Your task to perform on an android device: turn vacation reply on in the gmail app Image 0: 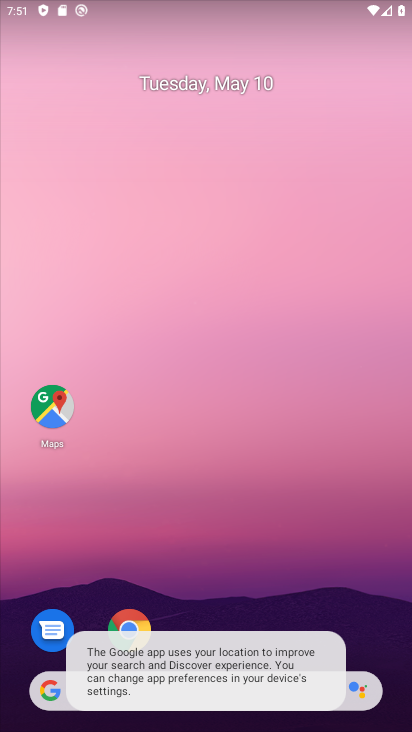
Step 0: drag from (297, 579) to (204, 1)
Your task to perform on an android device: turn vacation reply on in the gmail app Image 1: 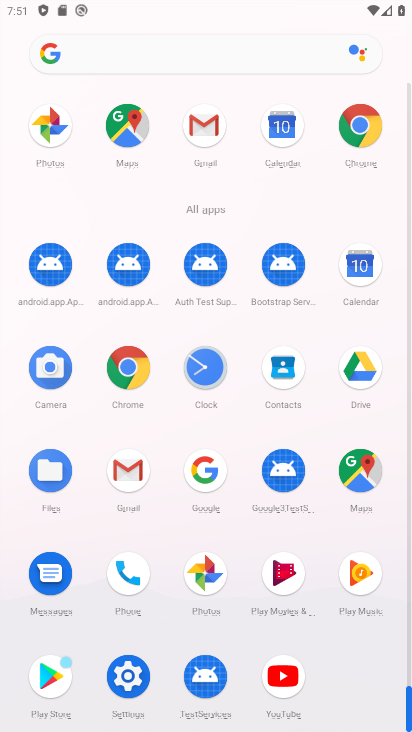
Step 1: drag from (0, 540) to (24, 222)
Your task to perform on an android device: turn vacation reply on in the gmail app Image 2: 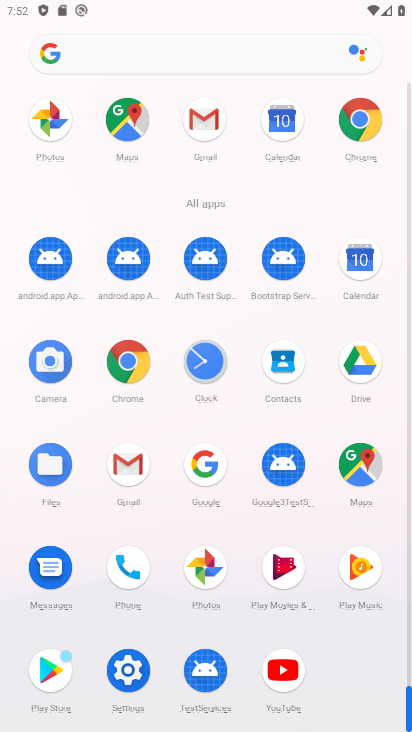
Step 2: click (128, 464)
Your task to perform on an android device: turn vacation reply on in the gmail app Image 3: 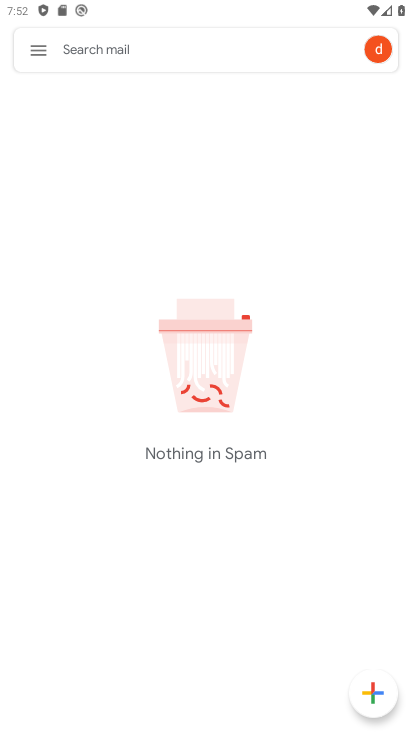
Step 3: click (33, 57)
Your task to perform on an android device: turn vacation reply on in the gmail app Image 4: 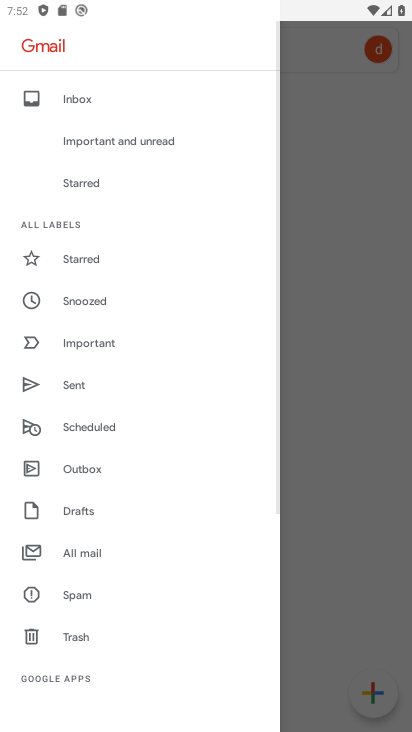
Step 4: drag from (180, 612) to (126, 169)
Your task to perform on an android device: turn vacation reply on in the gmail app Image 5: 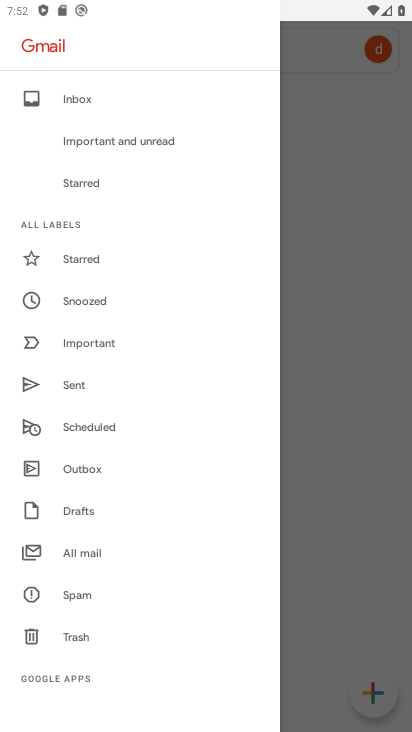
Step 5: drag from (108, 647) to (169, 266)
Your task to perform on an android device: turn vacation reply on in the gmail app Image 6: 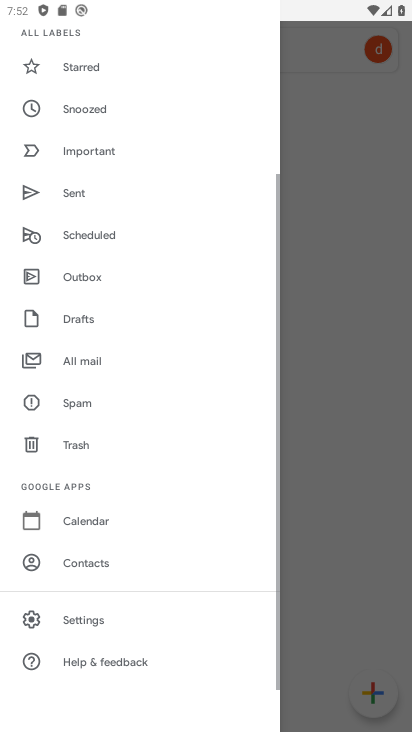
Step 6: click (76, 618)
Your task to perform on an android device: turn vacation reply on in the gmail app Image 7: 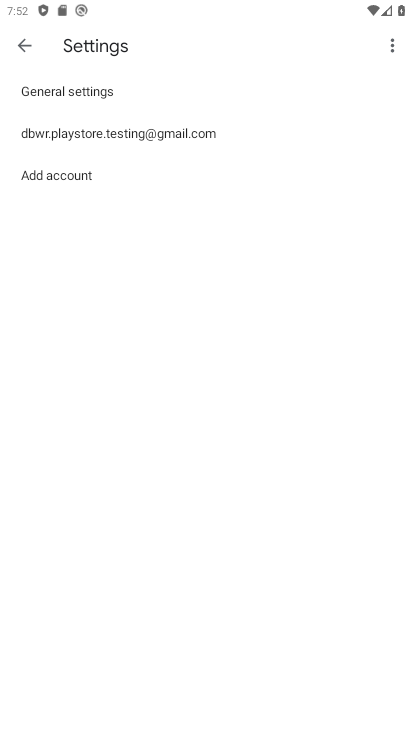
Step 7: click (121, 133)
Your task to perform on an android device: turn vacation reply on in the gmail app Image 8: 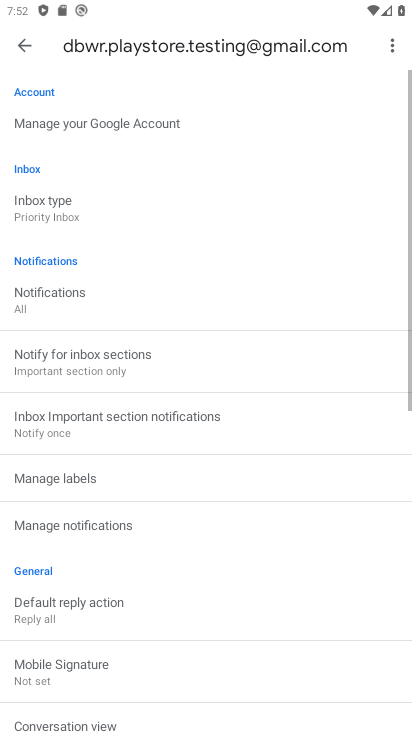
Step 8: drag from (274, 595) to (298, 132)
Your task to perform on an android device: turn vacation reply on in the gmail app Image 9: 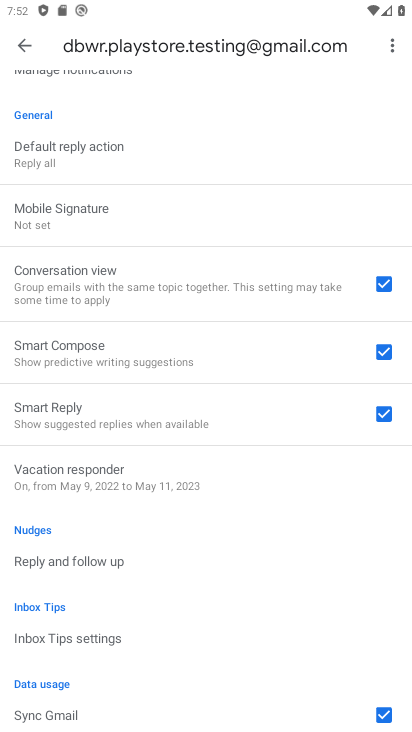
Step 9: click (163, 483)
Your task to perform on an android device: turn vacation reply on in the gmail app Image 10: 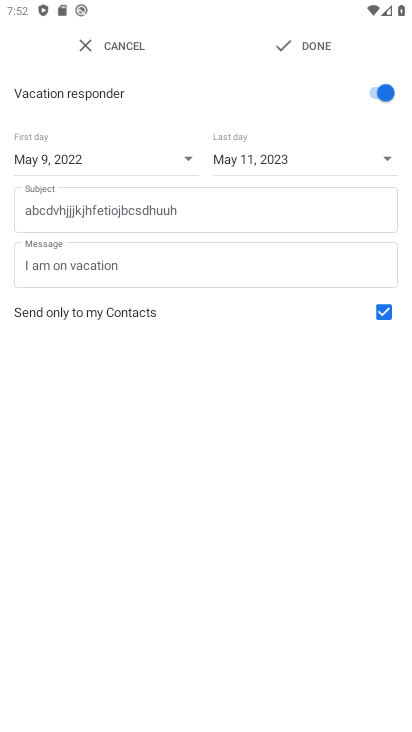
Step 10: click (320, 45)
Your task to perform on an android device: turn vacation reply on in the gmail app Image 11: 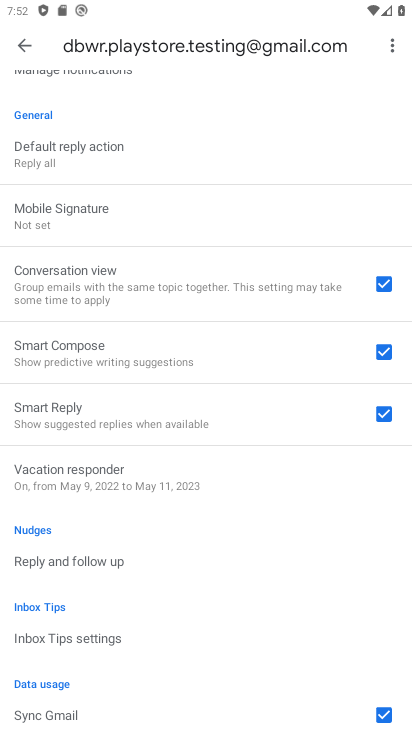
Step 11: task complete